Your task to perform on an android device: install app "File Manager" Image 0: 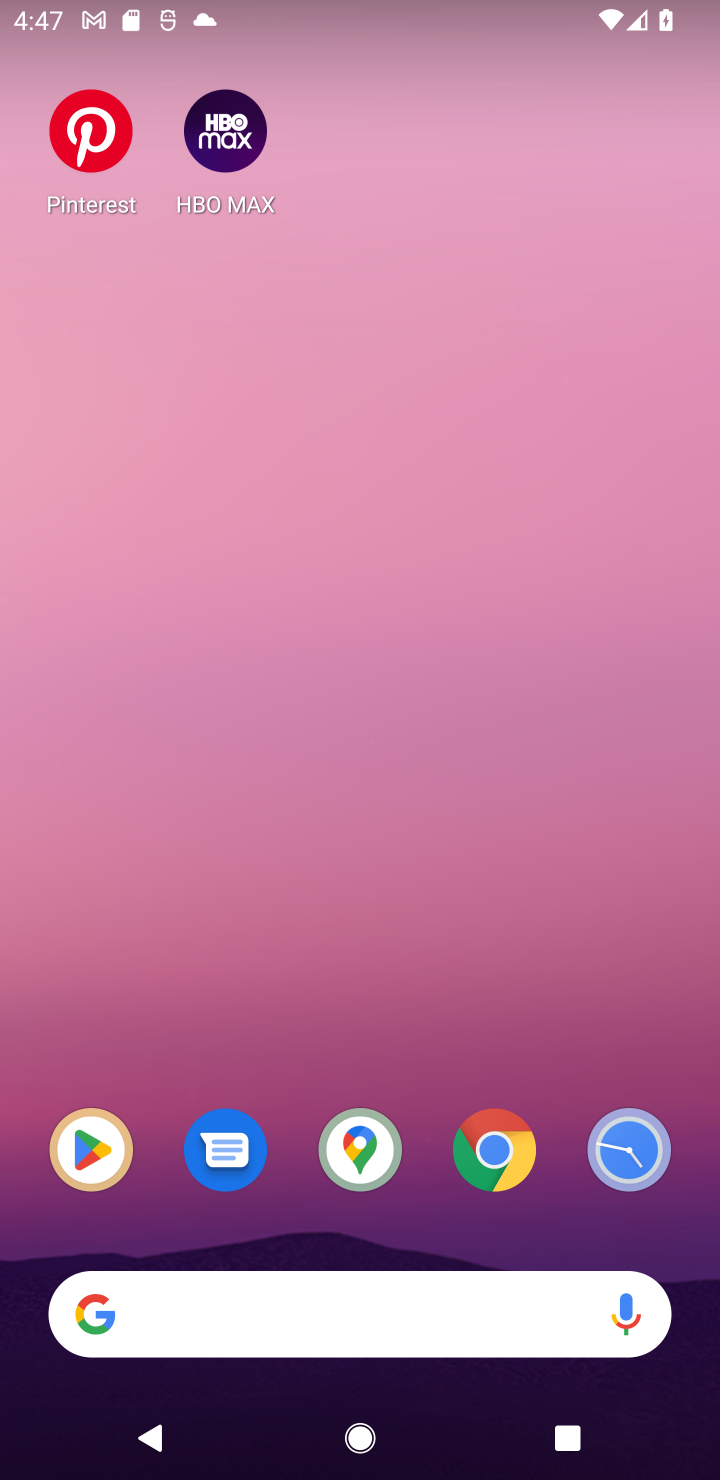
Step 0: drag from (412, 1460) to (412, 239)
Your task to perform on an android device: install app "File Manager" Image 1: 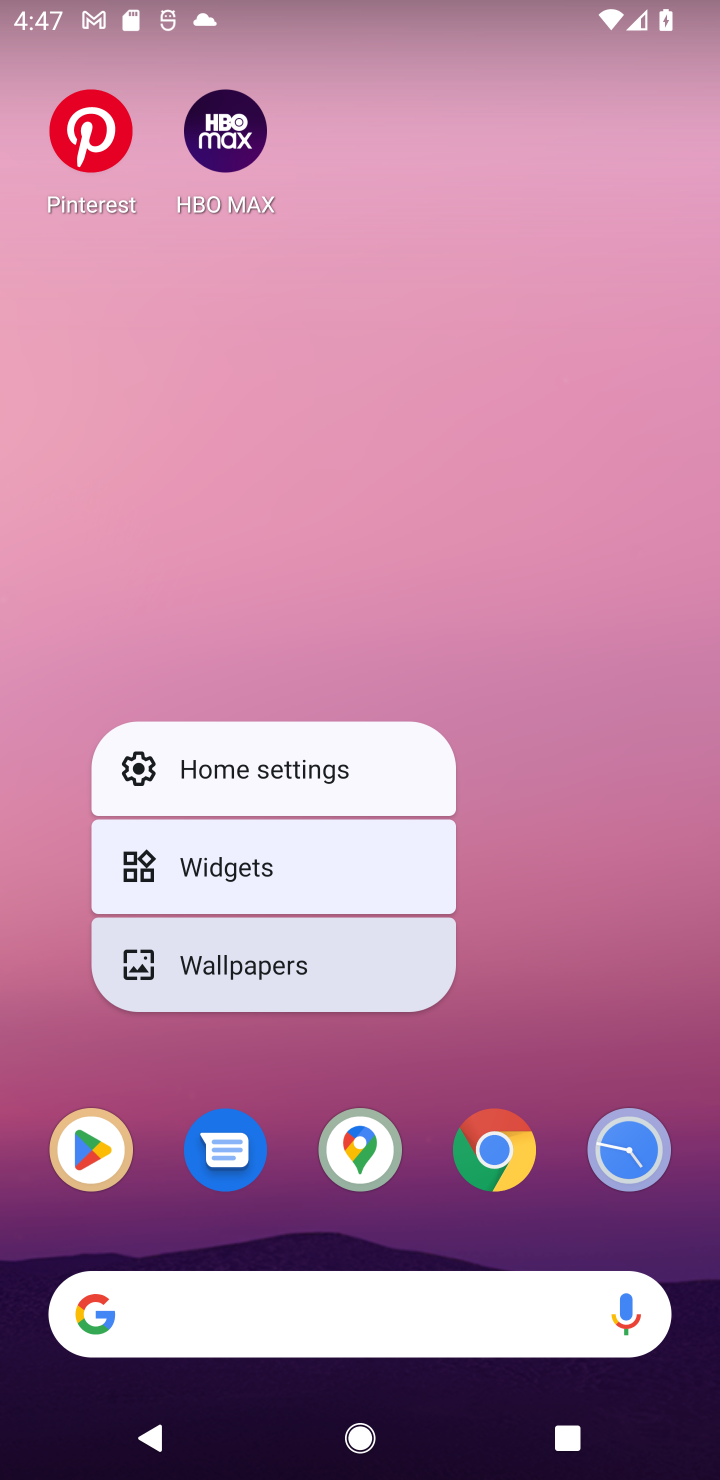
Step 1: click (523, 664)
Your task to perform on an android device: install app "File Manager" Image 2: 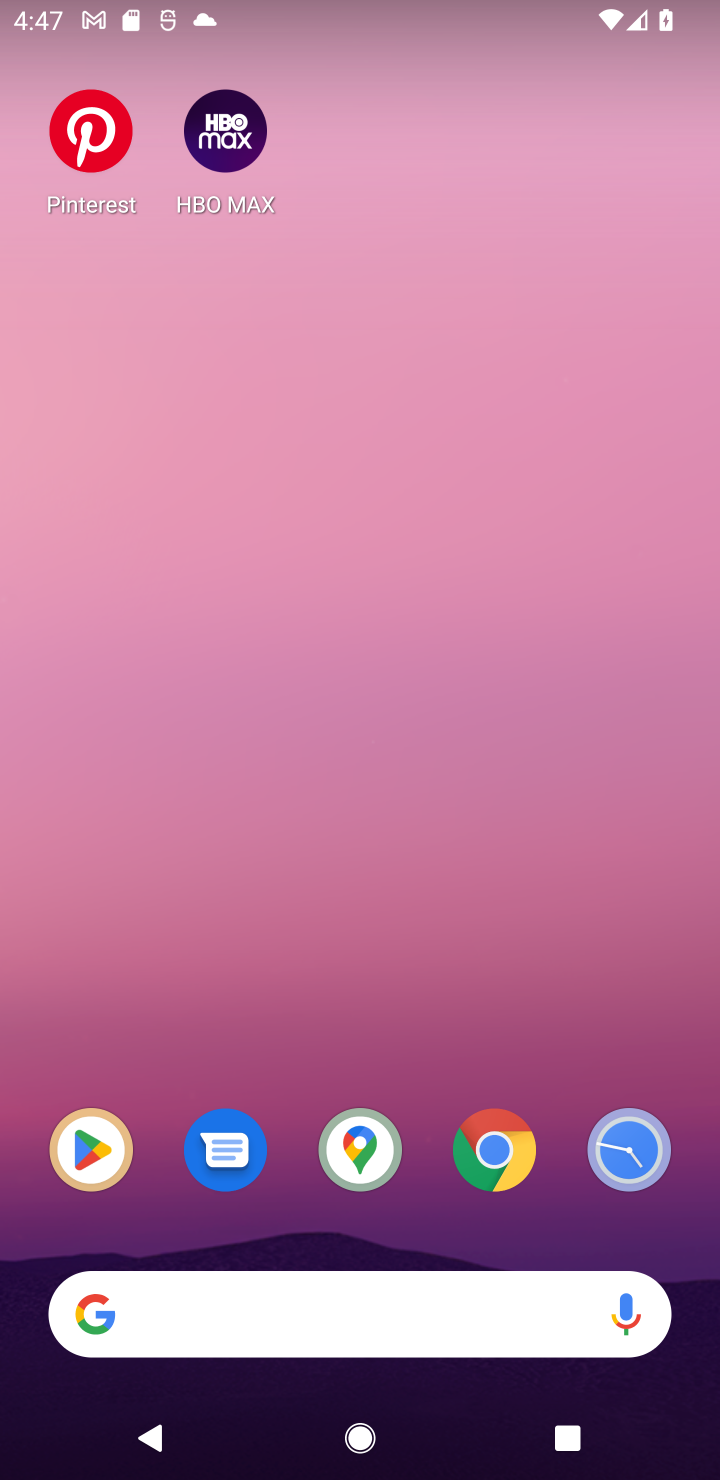
Step 2: drag from (429, 1280) to (426, 308)
Your task to perform on an android device: install app "File Manager" Image 3: 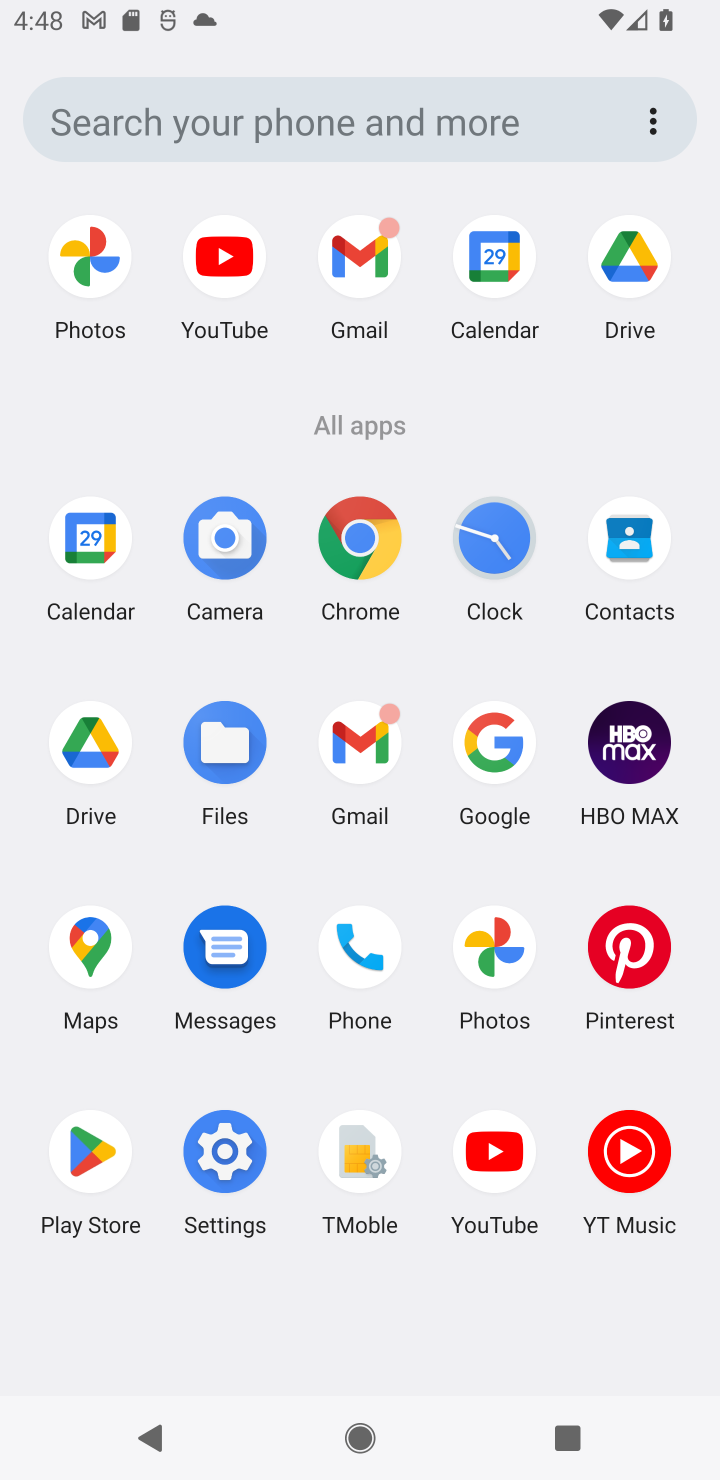
Step 3: click (94, 1154)
Your task to perform on an android device: install app "File Manager" Image 4: 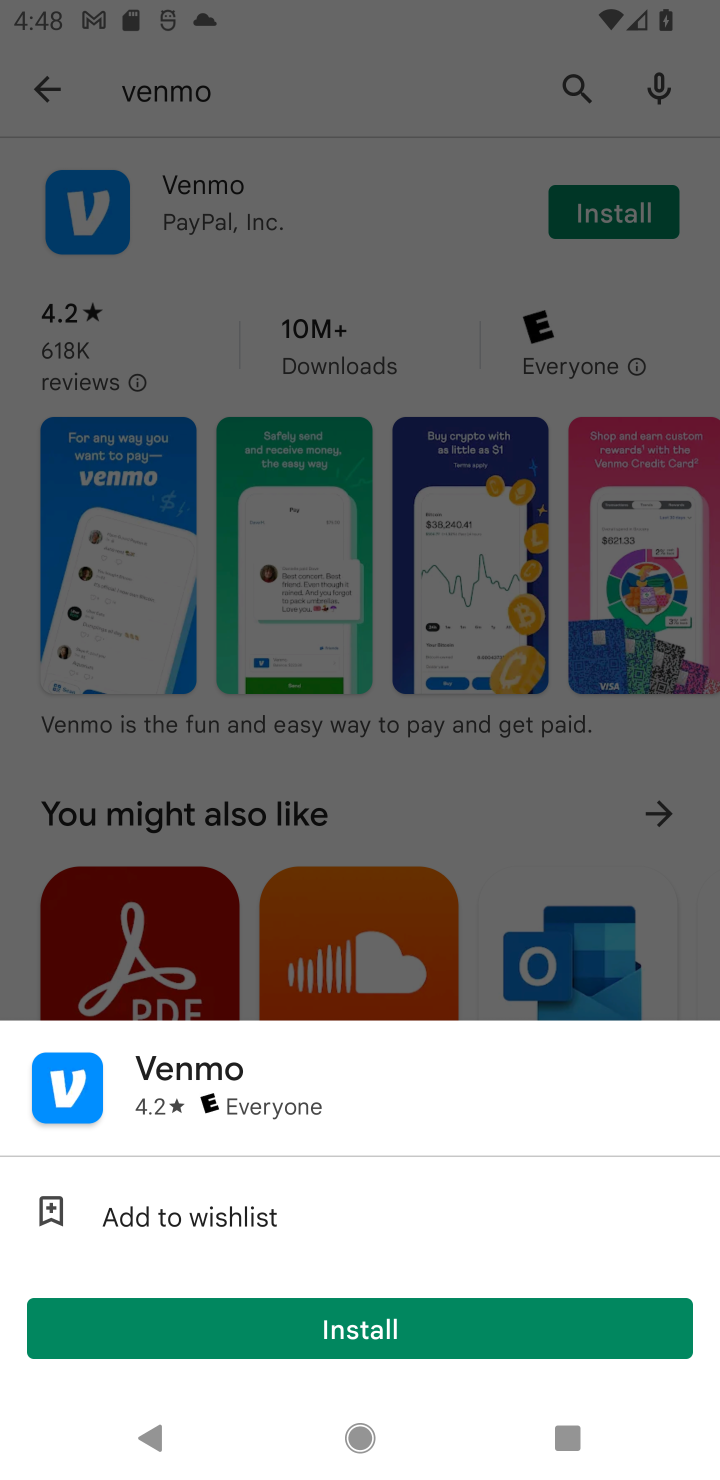
Step 4: click (459, 223)
Your task to perform on an android device: install app "File Manager" Image 5: 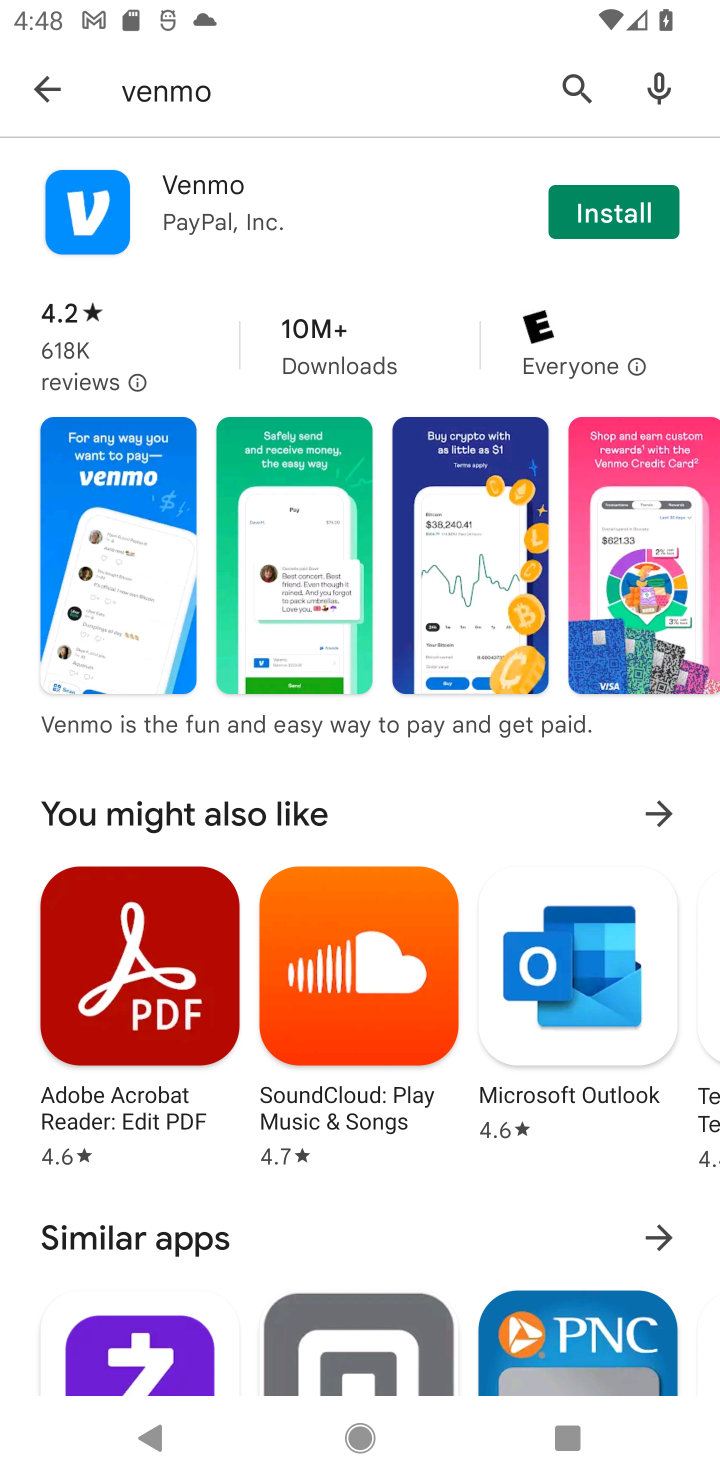
Step 5: click (585, 90)
Your task to perform on an android device: install app "File Manager" Image 6: 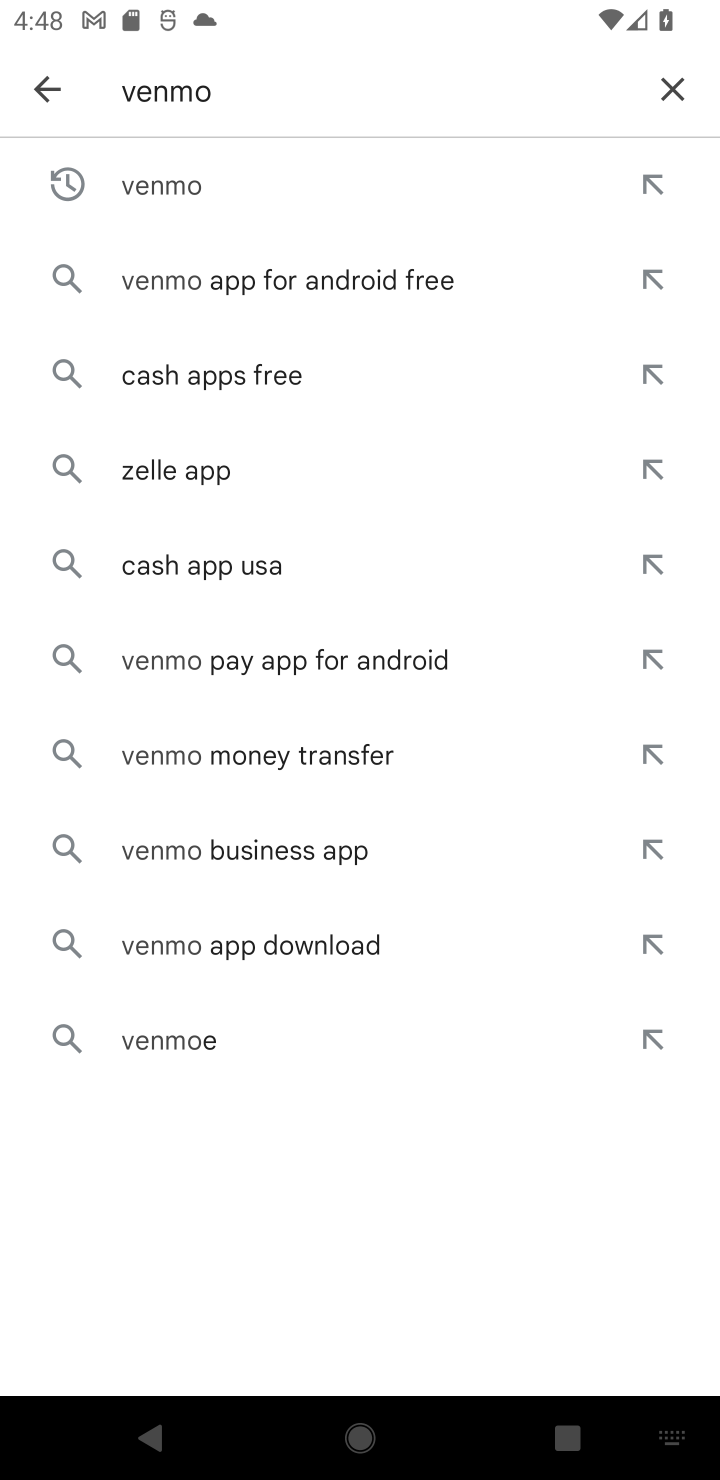
Step 6: click (667, 84)
Your task to perform on an android device: install app "File Manager" Image 7: 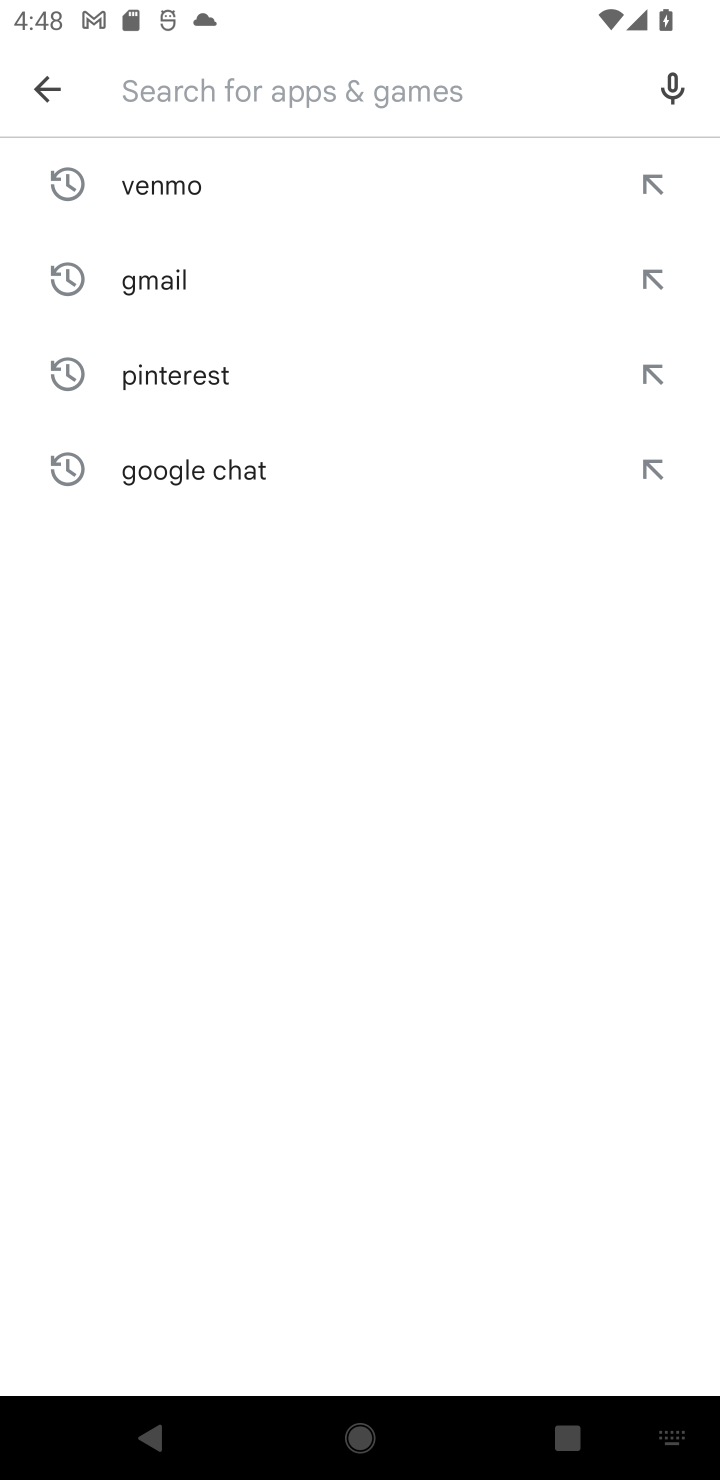
Step 7: type "File Manager"
Your task to perform on an android device: install app "File Manager" Image 8: 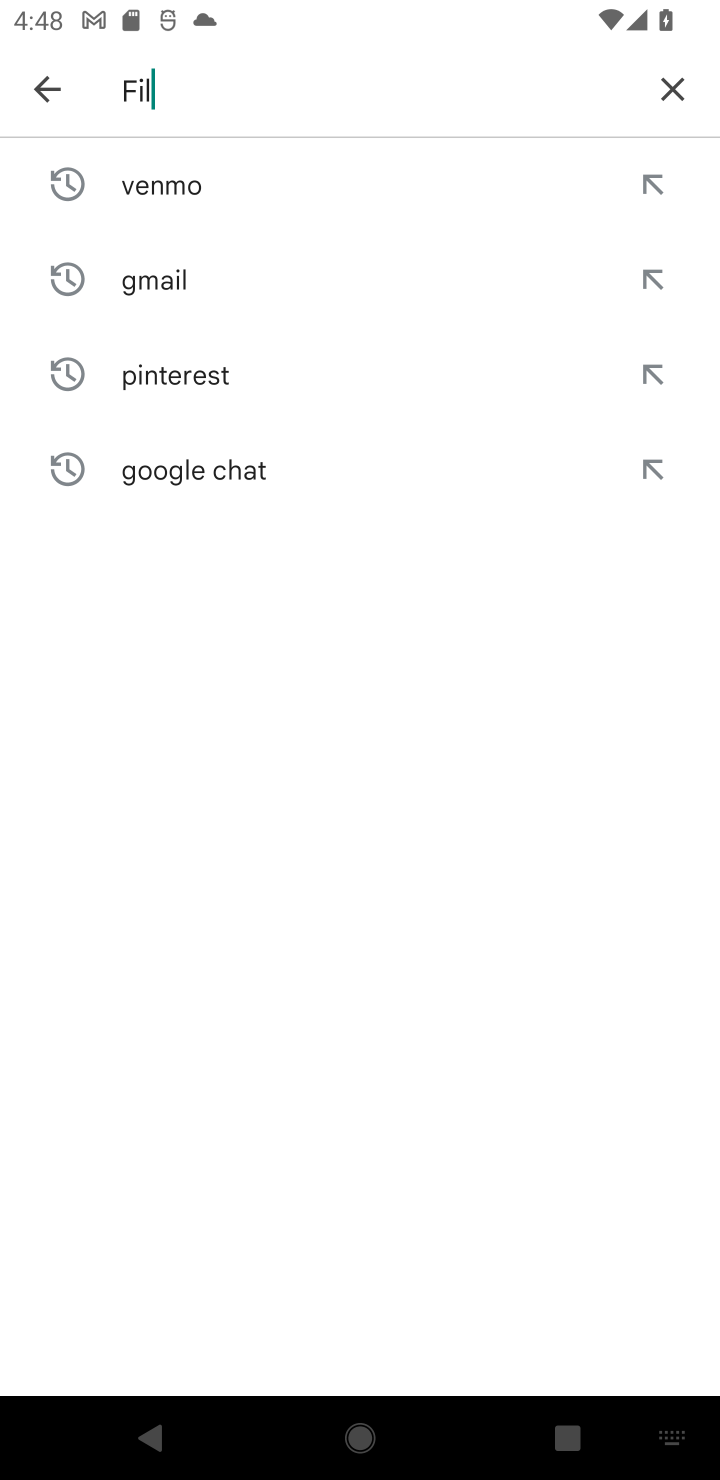
Step 8: type ""
Your task to perform on an android device: install app "File Manager" Image 9: 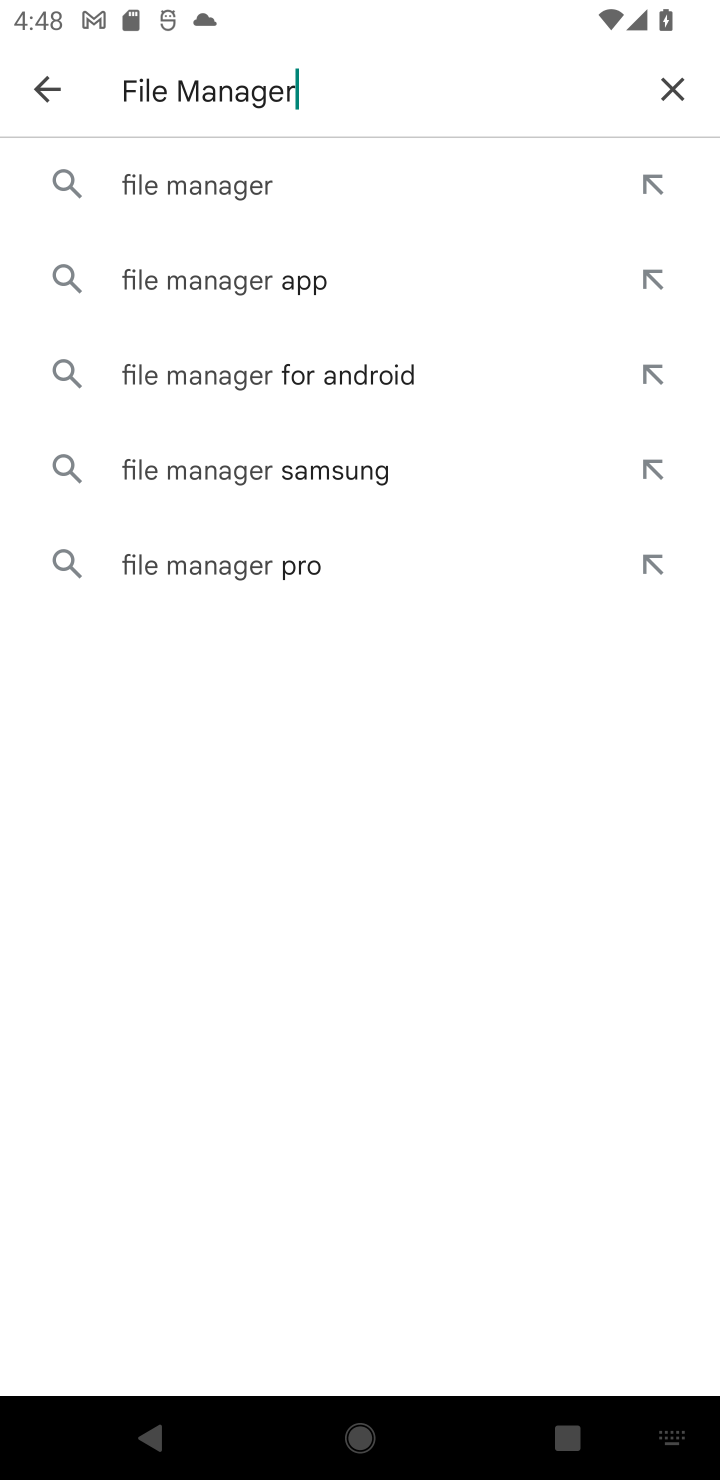
Step 9: click (189, 172)
Your task to perform on an android device: install app "File Manager" Image 10: 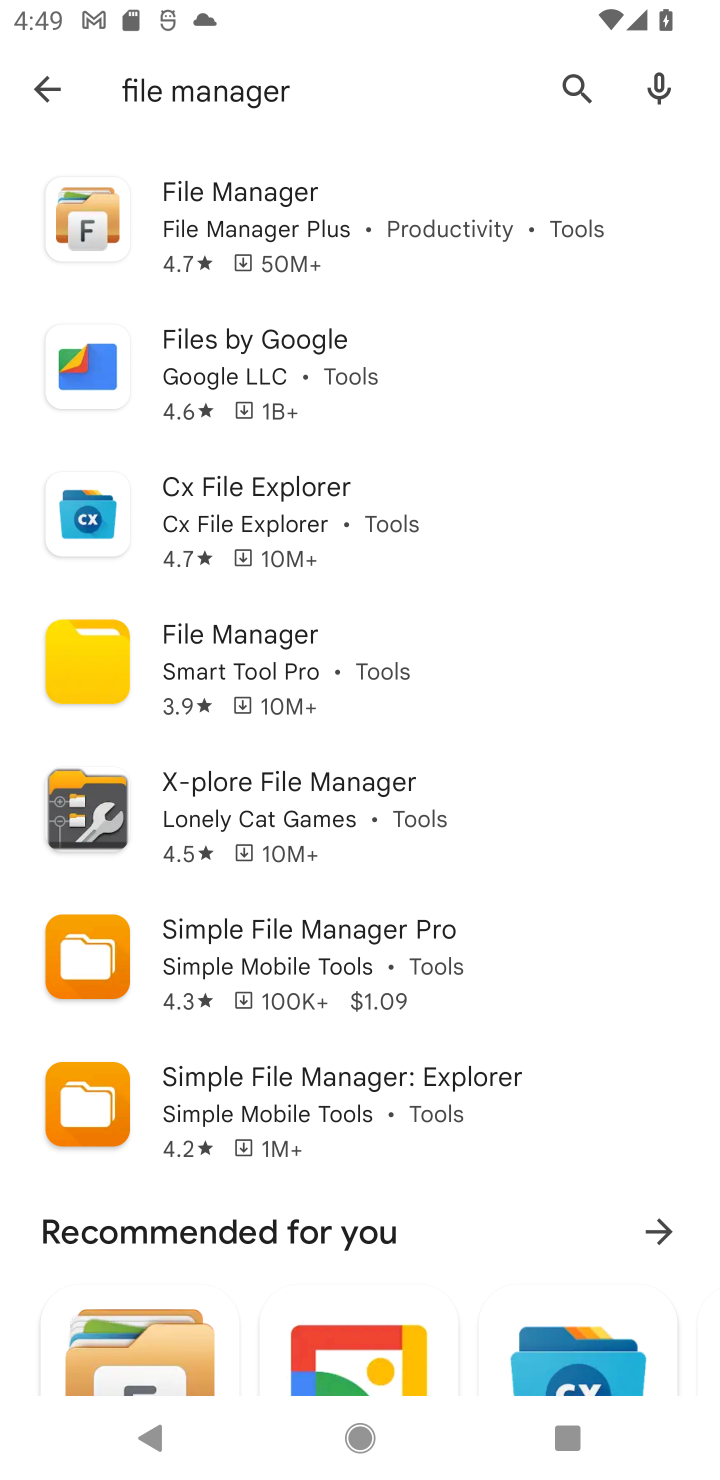
Step 10: click (227, 215)
Your task to perform on an android device: install app "File Manager" Image 11: 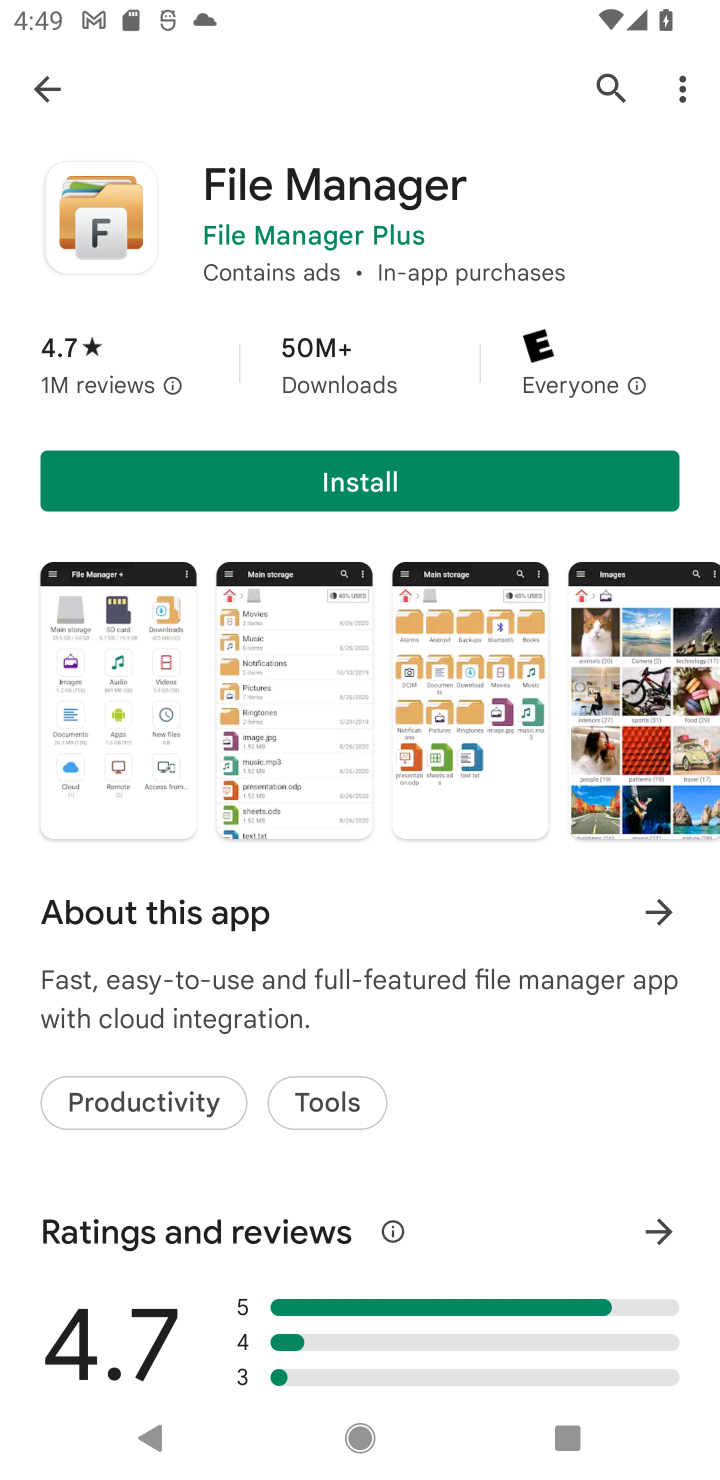
Step 11: click (372, 479)
Your task to perform on an android device: install app "File Manager" Image 12: 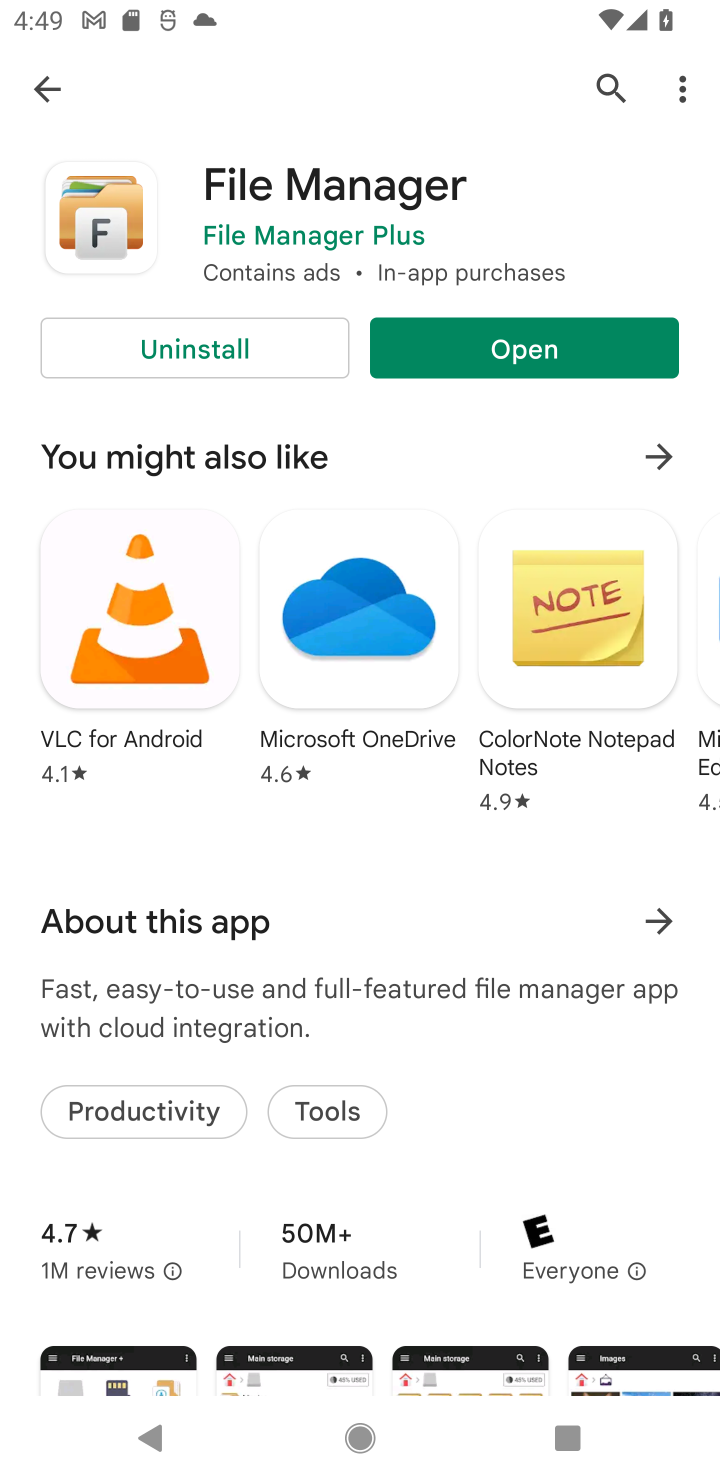
Step 12: task complete